Your task to perform on an android device: Do I have any events tomorrow? Image 0: 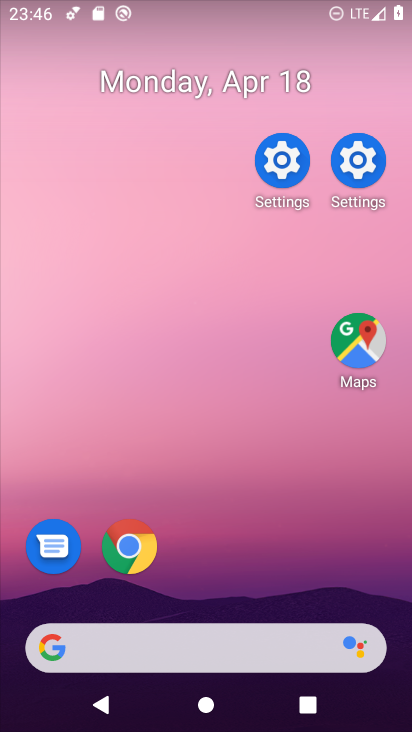
Step 0: drag from (254, 697) to (137, 200)
Your task to perform on an android device: Do I have any events tomorrow? Image 1: 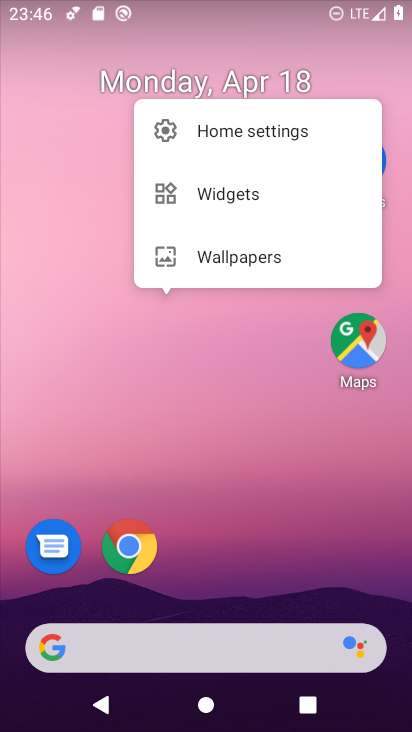
Step 1: drag from (202, 451) to (48, 226)
Your task to perform on an android device: Do I have any events tomorrow? Image 2: 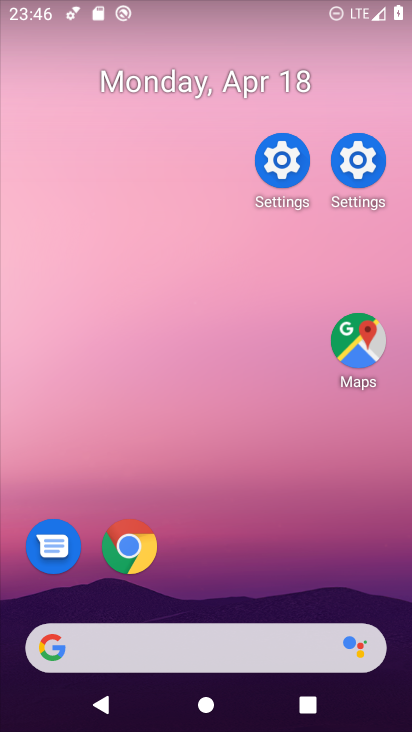
Step 2: drag from (181, 579) to (72, 238)
Your task to perform on an android device: Do I have any events tomorrow? Image 3: 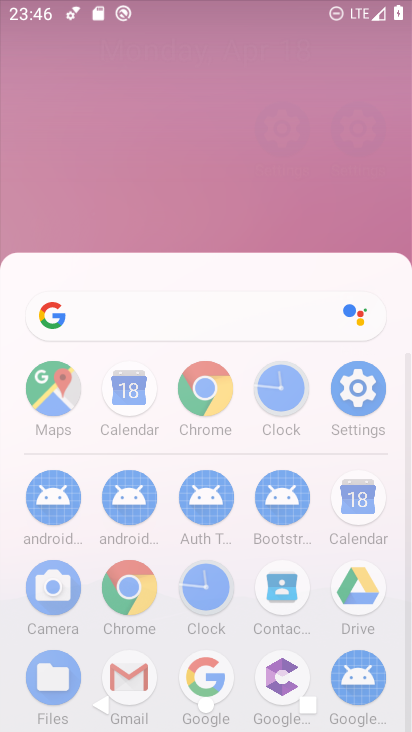
Step 3: drag from (144, 231) to (149, 184)
Your task to perform on an android device: Do I have any events tomorrow? Image 4: 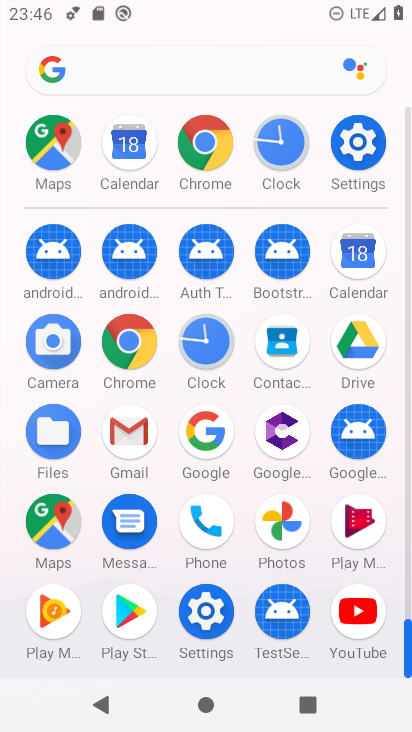
Step 4: click (356, 257)
Your task to perform on an android device: Do I have any events tomorrow? Image 5: 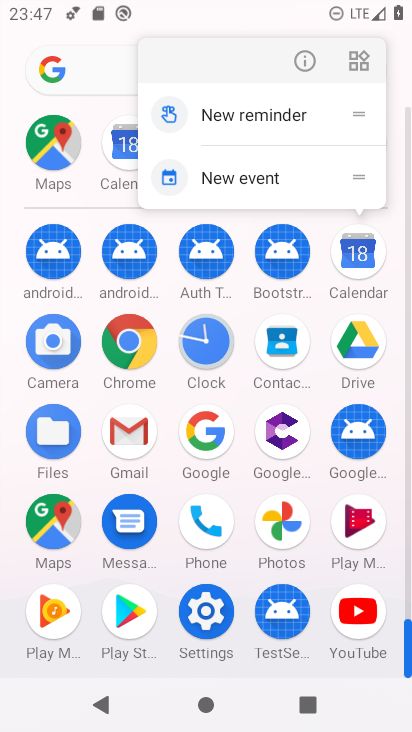
Step 5: click (355, 257)
Your task to perform on an android device: Do I have any events tomorrow? Image 6: 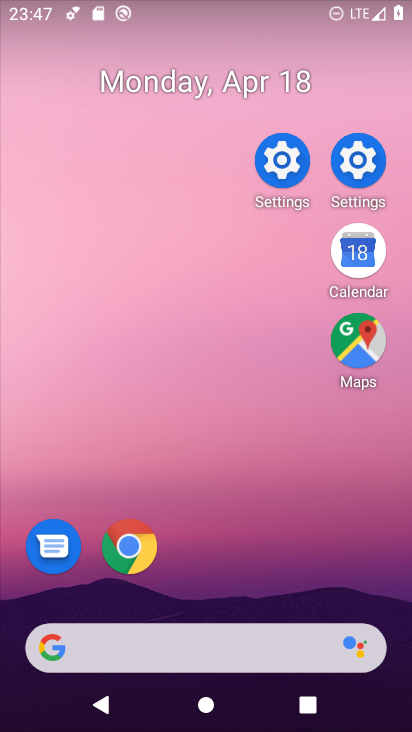
Step 6: drag from (239, 459) to (142, 168)
Your task to perform on an android device: Do I have any events tomorrow? Image 7: 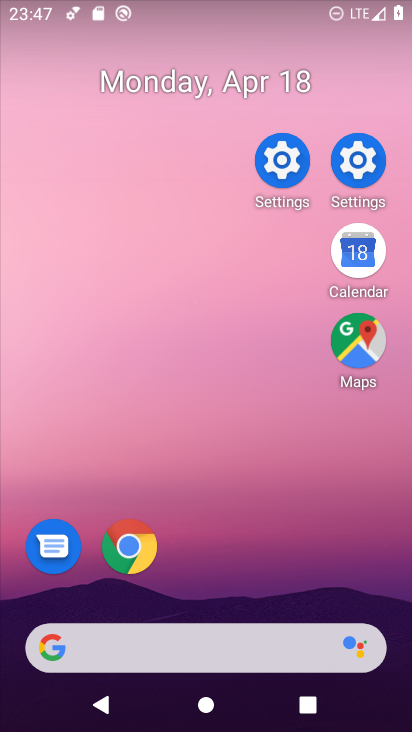
Step 7: drag from (262, 493) to (129, 2)
Your task to perform on an android device: Do I have any events tomorrow? Image 8: 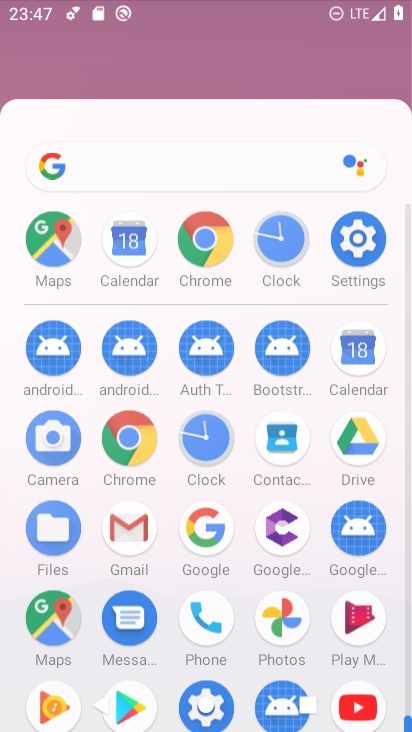
Step 8: drag from (305, 417) to (146, 101)
Your task to perform on an android device: Do I have any events tomorrow? Image 9: 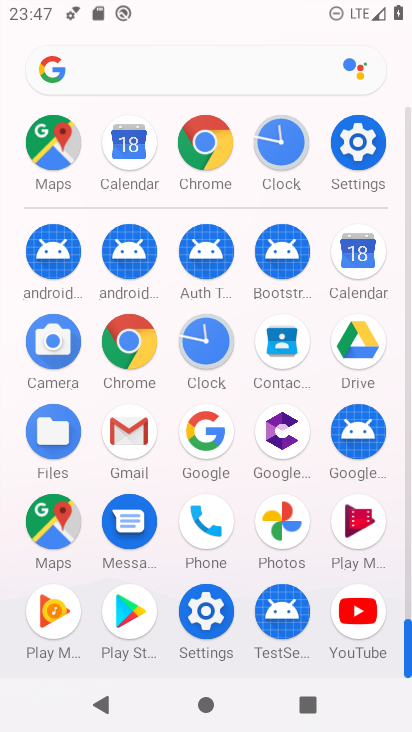
Step 9: click (354, 254)
Your task to perform on an android device: Do I have any events tomorrow? Image 10: 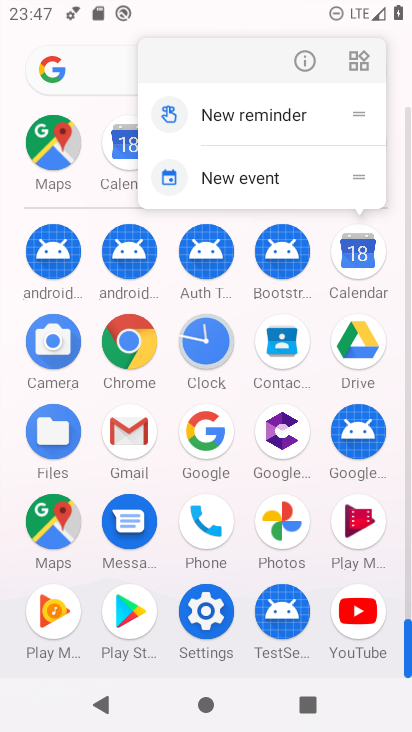
Step 10: click (353, 254)
Your task to perform on an android device: Do I have any events tomorrow? Image 11: 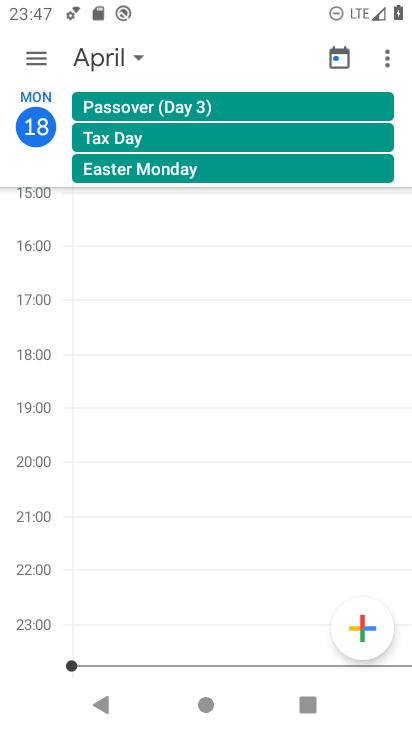
Step 11: click (138, 58)
Your task to perform on an android device: Do I have any events tomorrow? Image 12: 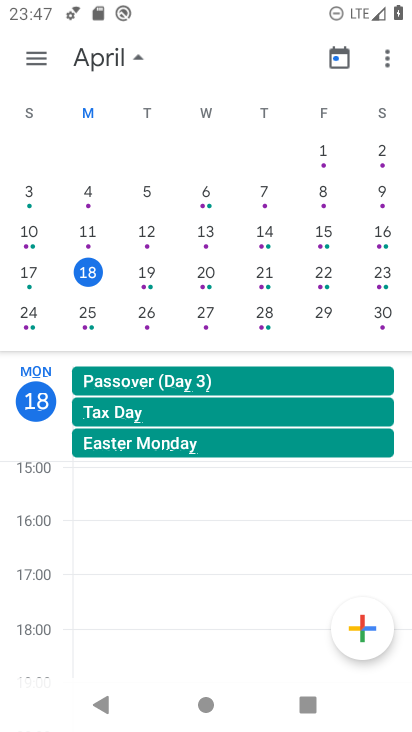
Step 12: click (189, 416)
Your task to perform on an android device: Do I have any events tomorrow? Image 13: 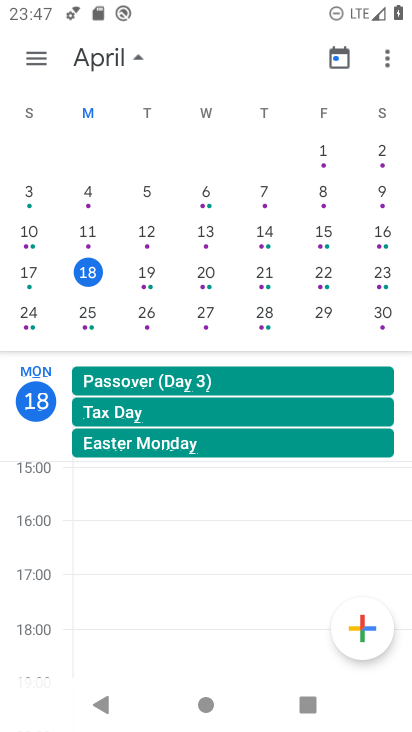
Step 13: drag from (201, 498) to (135, 285)
Your task to perform on an android device: Do I have any events tomorrow? Image 14: 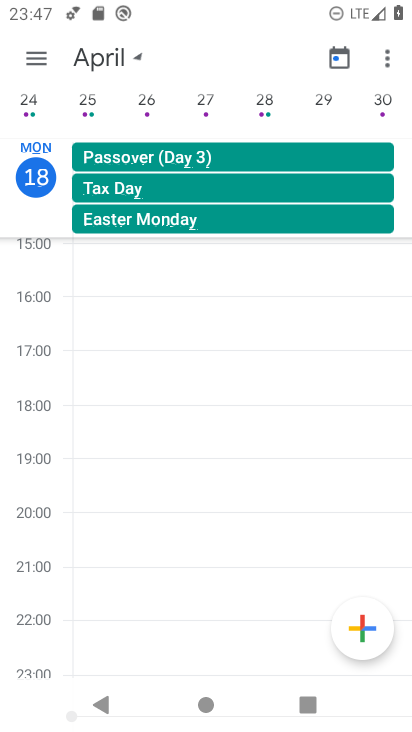
Step 14: drag from (185, 422) to (164, 257)
Your task to perform on an android device: Do I have any events tomorrow? Image 15: 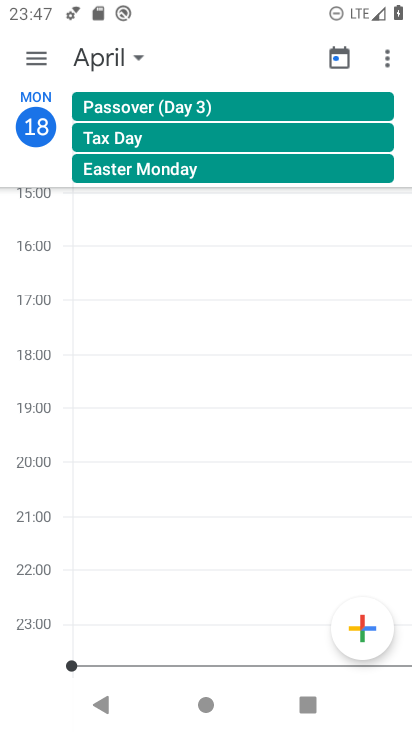
Step 15: drag from (159, 522) to (156, 251)
Your task to perform on an android device: Do I have any events tomorrow? Image 16: 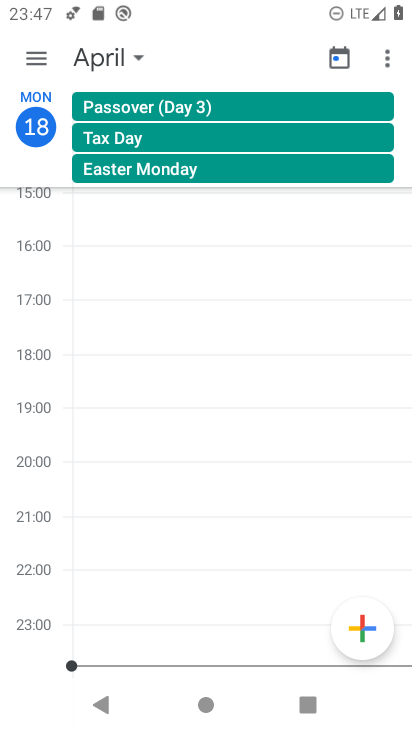
Step 16: drag from (156, 248) to (211, 698)
Your task to perform on an android device: Do I have any events tomorrow? Image 17: 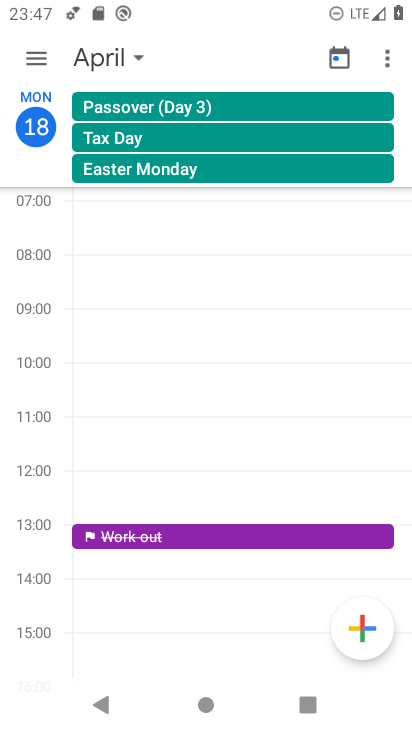
Step 17: drag from (238, 425) to (267, 516)
Your task to perform on an android device: Do I have any events tomorrow? Image 18: 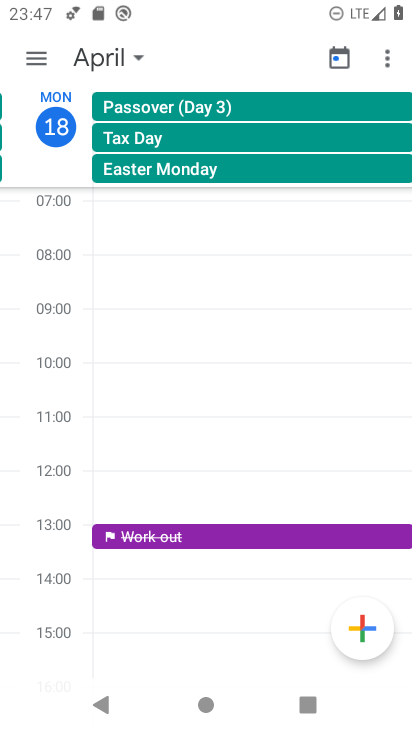
Step 18: drag from (248, 415) to (288, 553)
Your task to perform on an android device: Do I have any events tomorrow? Image 19: 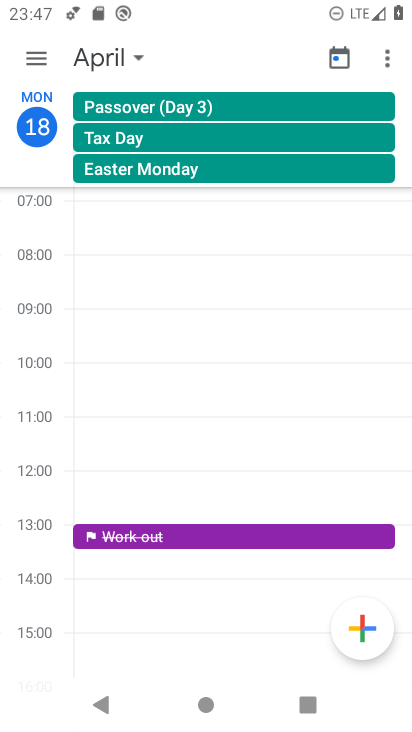
Step 19: drag from (255, 396) to (222, 664)
Your task to perform on an android device: Do I have any events tomorrow? Image 20: 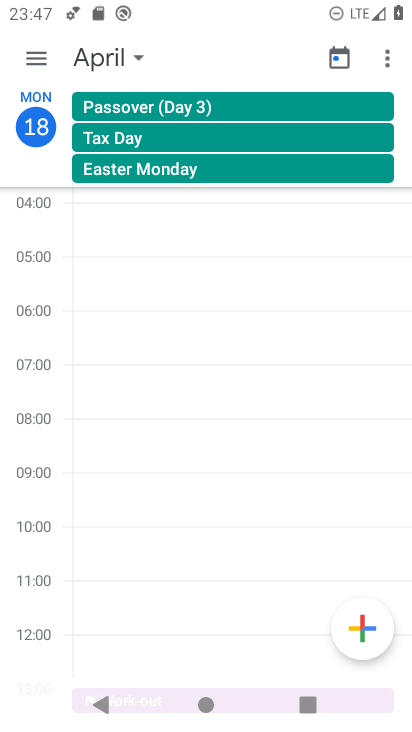
Step 20: drag from (229, 404) to (216, 698)
Your task to perform on an android device: Do I have any events tomorrow? Image 21: 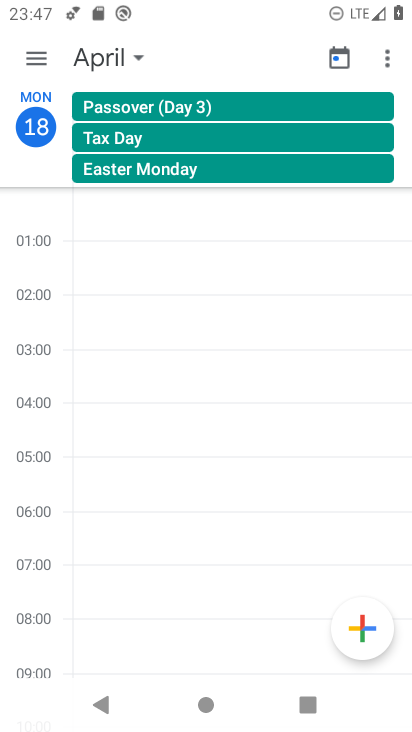
Step 21: drag from (194, 151) to (196, 497)
Your task to perform on an android device: Do I have any events tomorrow? Image 22: 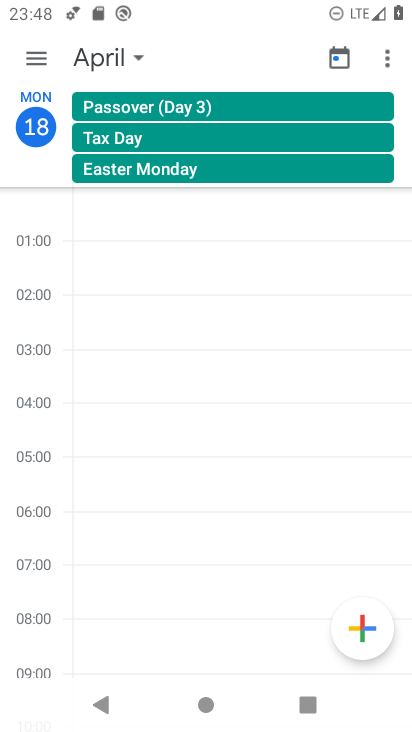
Step 22: click (136, 57)
Your task to perform on an android device: Do I have any events tomorrow? Image 23: 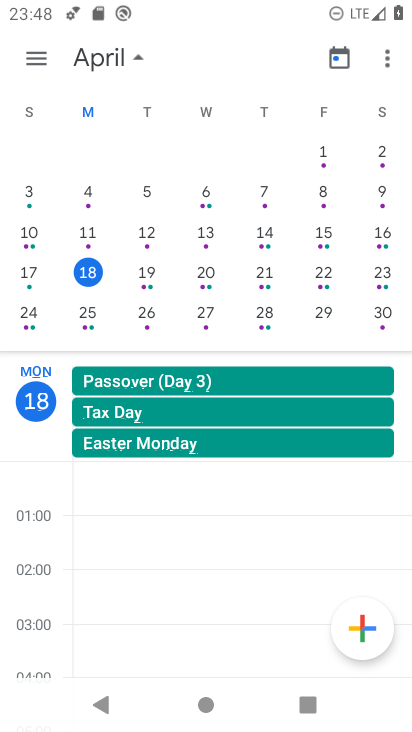
Step 23: click (160, 385)
Your task to perform on an android device: Do I have any events tomorrow? Image 24: 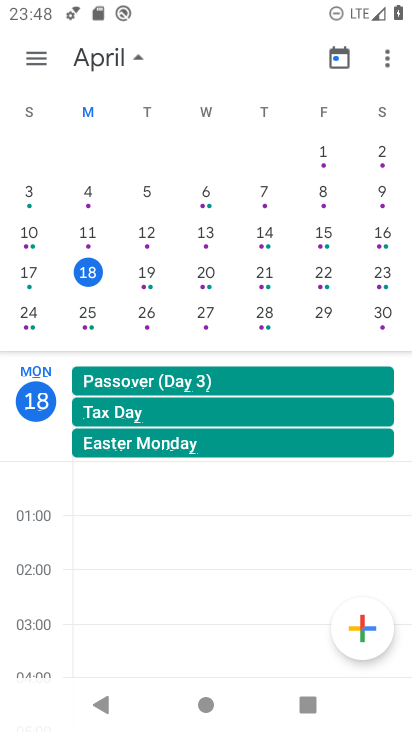
Step 24: drag from (159, 378) to (93, 178)
Your task to perform on an android device: Do I have any events tomorrow? Image 25: 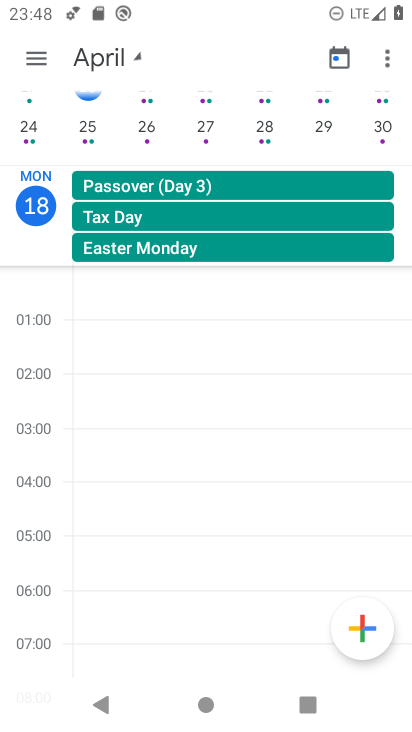
Step 25: drag from (265, 555) to (220, 232)
Your task to perform on an android device: Do I have any events tomorrow? Image 26: 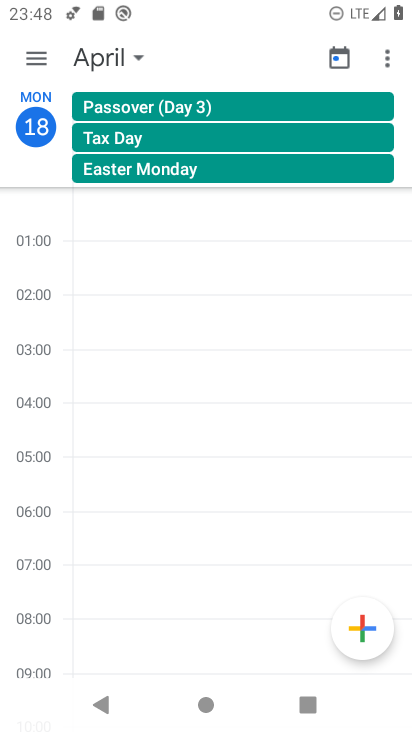
Step 26: click (128, 179)
Your task to perform on an android device: Do I have any events tomorrow? Image 27: 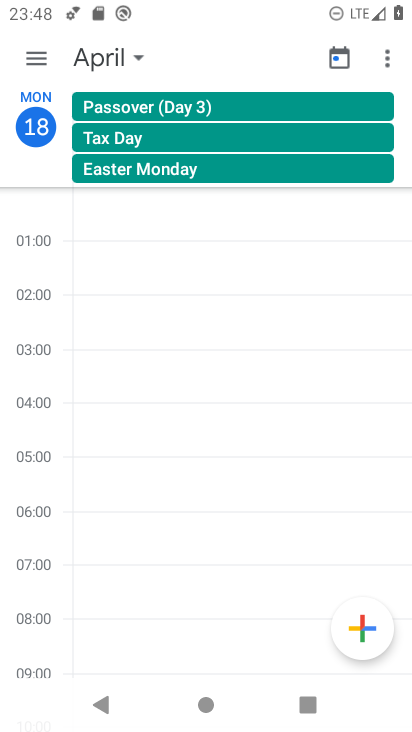
Step 27: task complete